Your task to perform on an android device: toggle notifications settings in the gmail app Image 0: 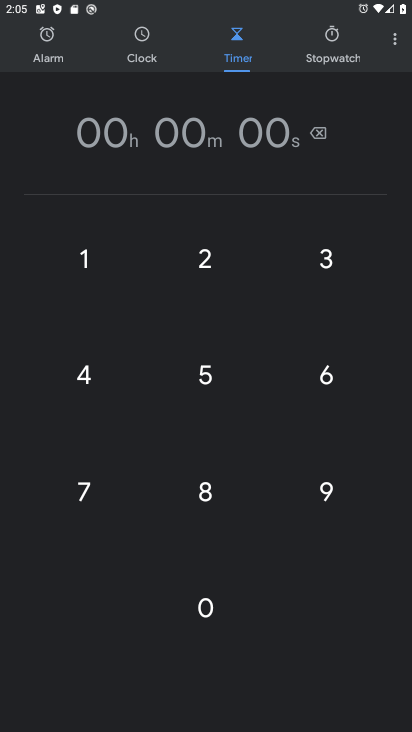
Step 0: press home button
Your task to perform on an android device: toggle notifications settings in the gmail app Image 1: 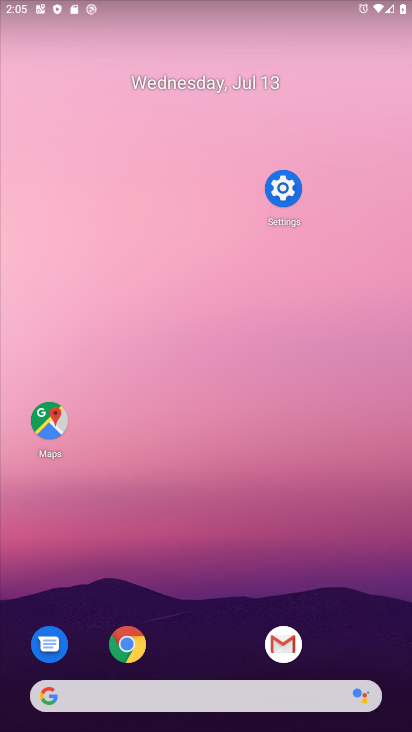
Step 1: click (284, 629)
Your task to perform on an android device: toggle notifications settings in the gmail app Image 2: 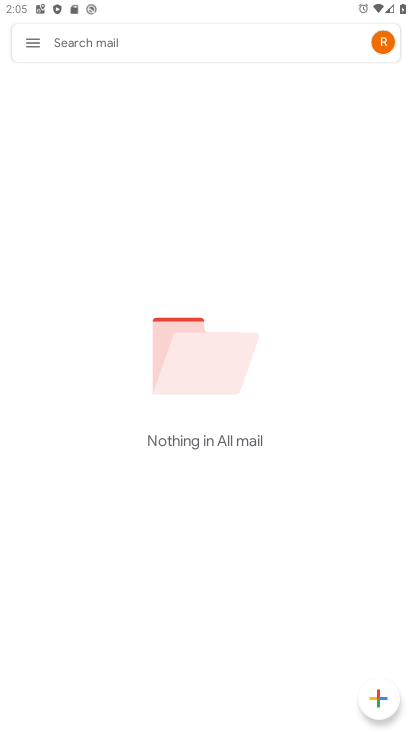
Step 2: click (27, 53)
Your task to perform on an android device: toggle notifications settings in the gmail app Image 3: 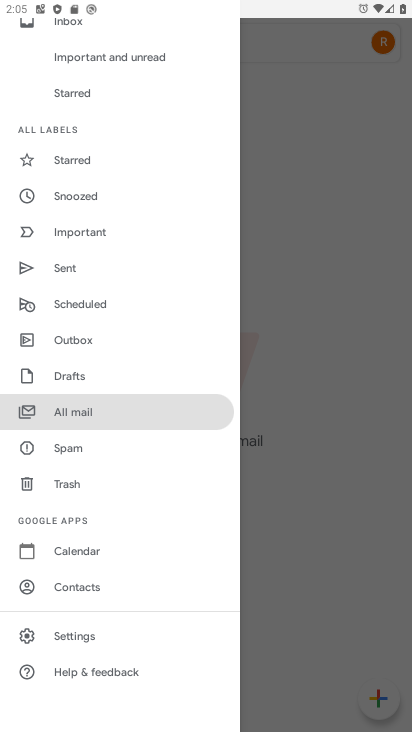
Step 3: click (96, 634)
Your task to perform on an android device: toggle notifications settings in the gmail app Image 4: 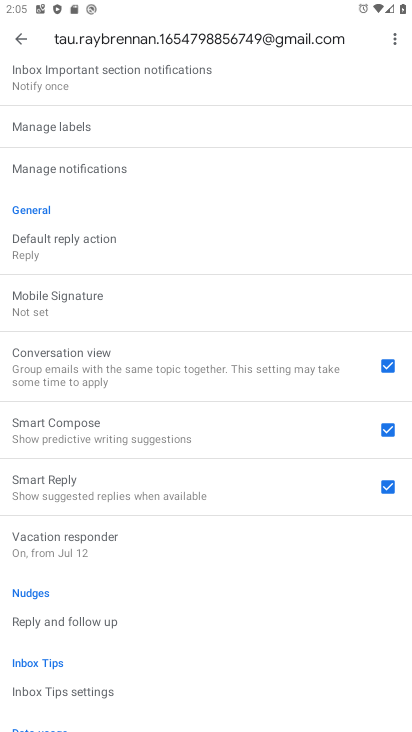
Step 4: click (89, 163)
Your task to perform on an android device: toggle notifications settings in the gmail app Image 5: 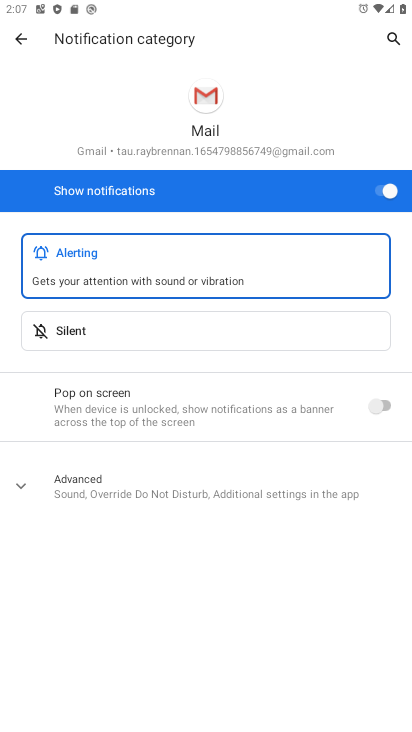
Step 5: task complete